Your task to perform on an android device: turn off data saver in the chrome app Image 0: 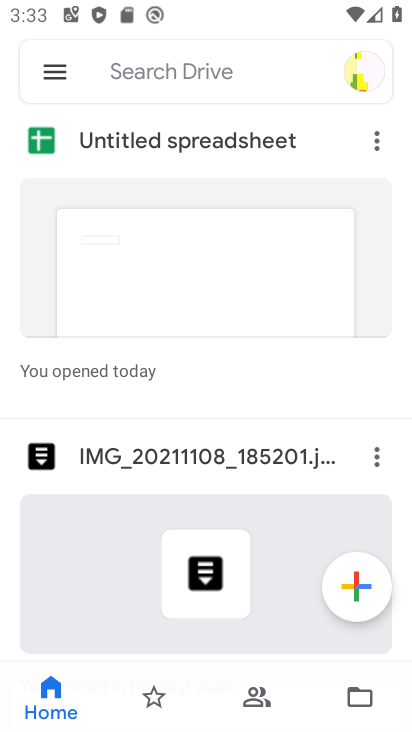
Step 0: press home button
Your task to perform on an android device: turn off data saver in the chrome app Image 1: 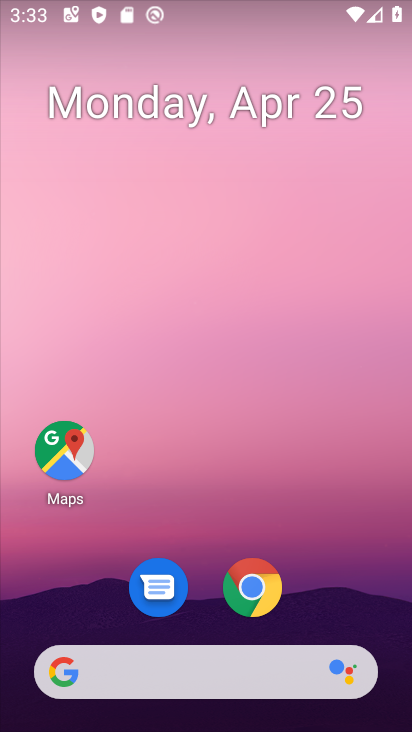
Step 1: click (252, 585)
Your task to perform on an android device: turn off data saver in the chrome app Image 2: 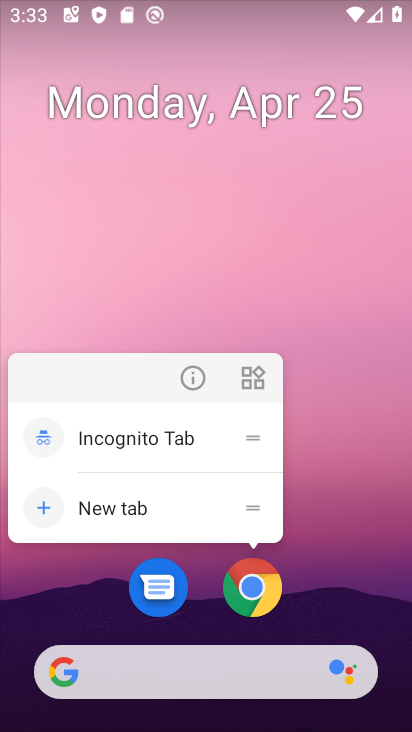
Step 2: click (259, 586)
Your task to perform on an android device: turn off data saver in the chrome app Image 3: 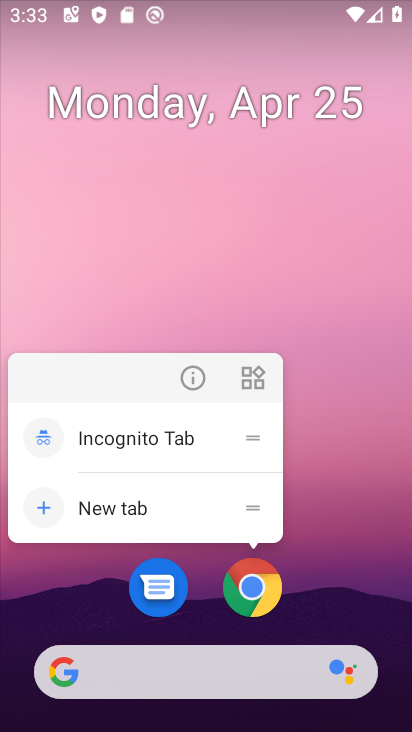
Step 3: click (259, 587)
Your task to perform on an android device: turn off data saver in the chrome app Image 4: 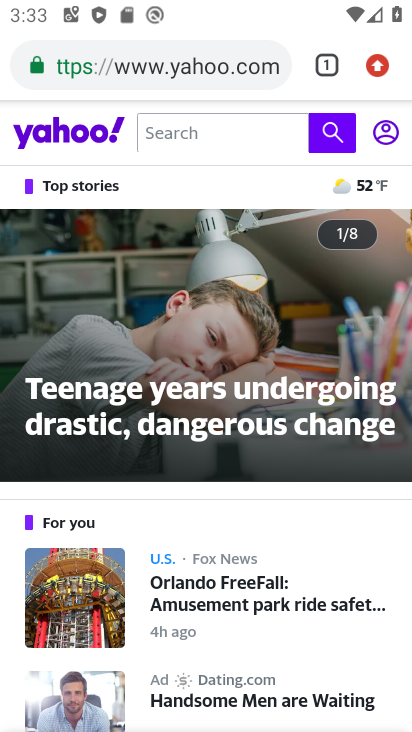
Step 4: click (377, 66)
Your task to perform on an android device: turn off data saver in the chrome app Image 5: 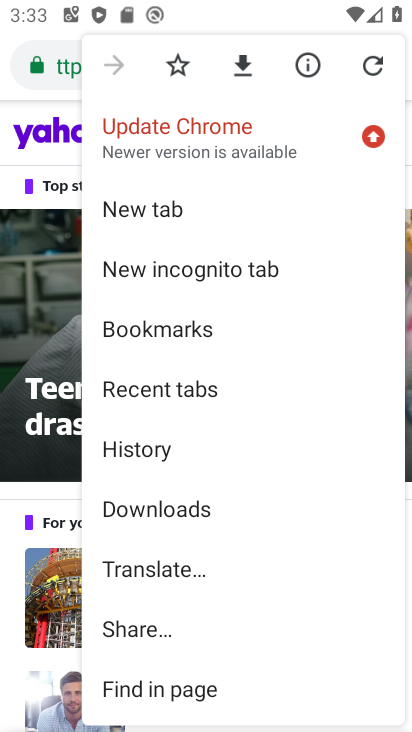
Step 5: drag from (230, 582) to (244, 128)
Your task to perform on an android device: turn off data saver in the chrome app Image 6: 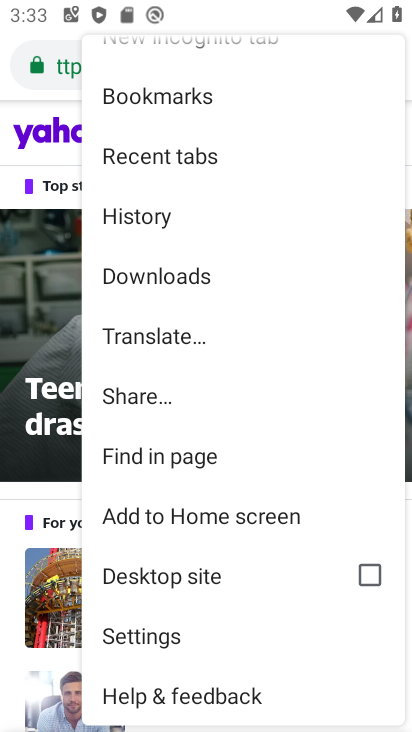
Step 6: click (126, 639)
Your task to perform on an android device: turn off data saver in the chrome app Image 7: 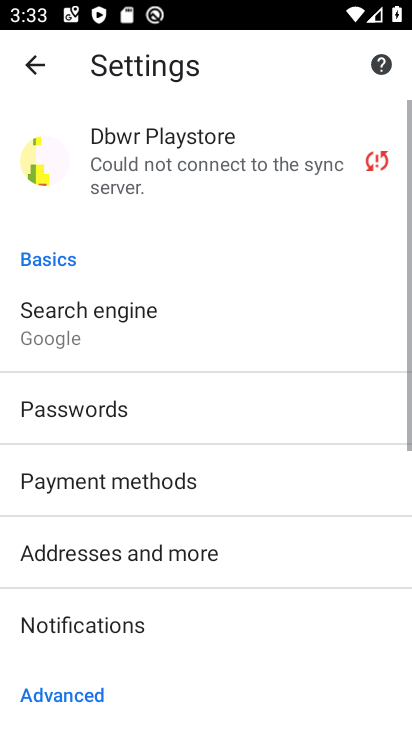
Step 7: drag from (103, 565) to (181, 222)
Your task to perform on an android device: turn off data saver in the chrome app Image 8: 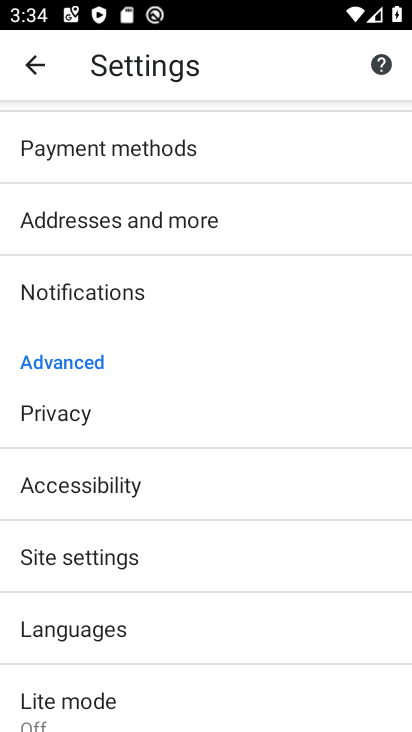
Step 8: drag from (127, 669) to (145, 513)
Your task to perform on an android device: turn off data saver in the chrome app Image 9: 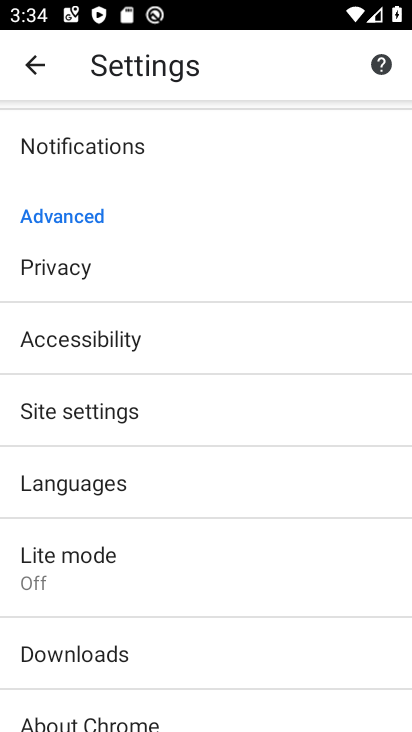
Step 9: drag from (97, 579) to (221, 361)
Your task to perform on an android device: turn off data saver in the chrome app Image 10: 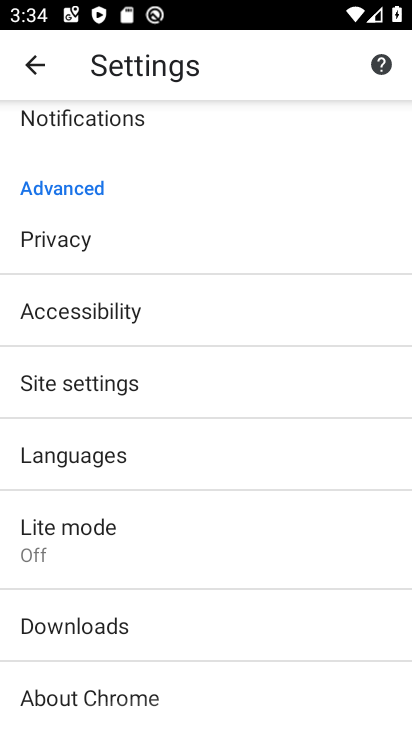
Step 10: click (115, 543)
Your task to perform on an android device: turn off data saver in the chrome app Image 11: 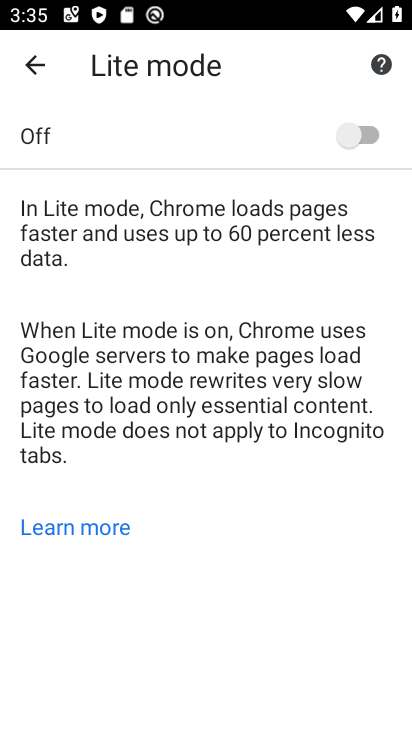
Step 11: task complete